Your task to perform on an android device: Open Google Chrome Image 0: 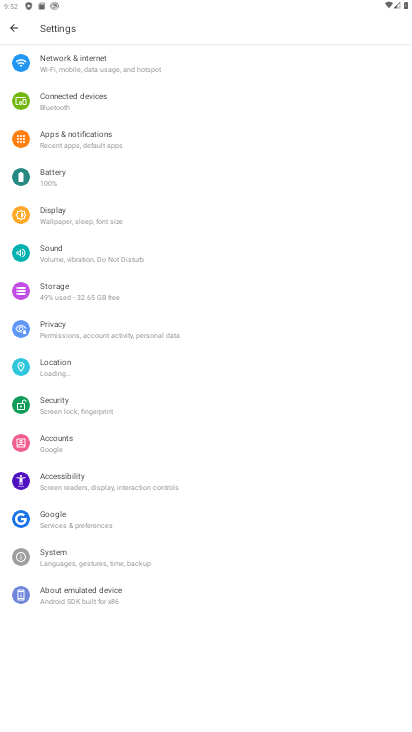
Step 0: press home button
Your task to perform on an android device: Open Google Chrome Image 1: 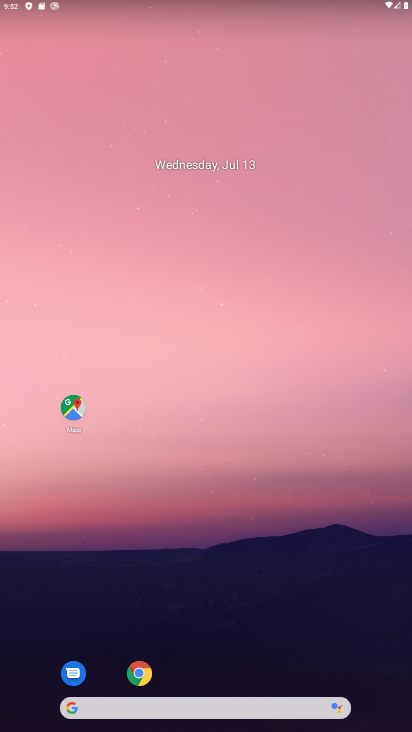
Step 1: drag from (246, 701) to (243, 348)
Your task to perform on an android device: Open Google Chrome Image 2: 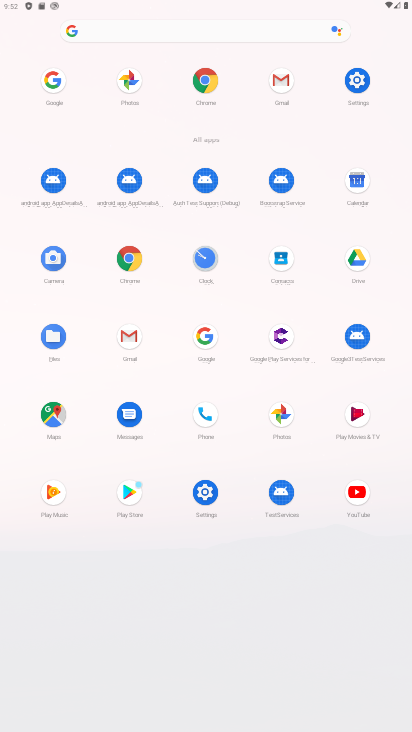
Step 2: click (122, 254)
Your task to perform on an android device: Open Google Chrome Image 3: 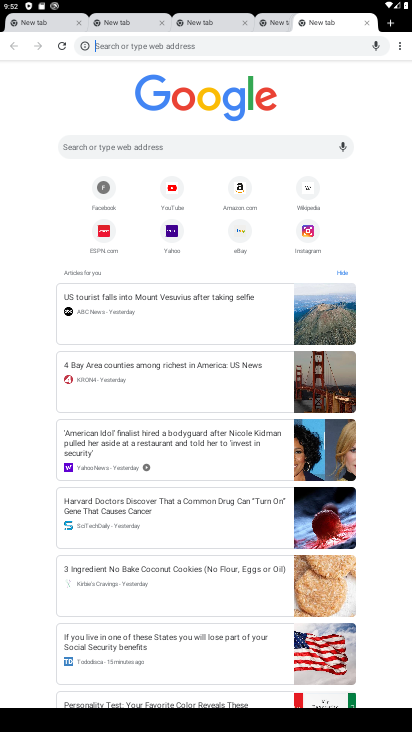
Step 3: task complete